Your task to perform on an android device: turn on improve location accuracy Image 0: 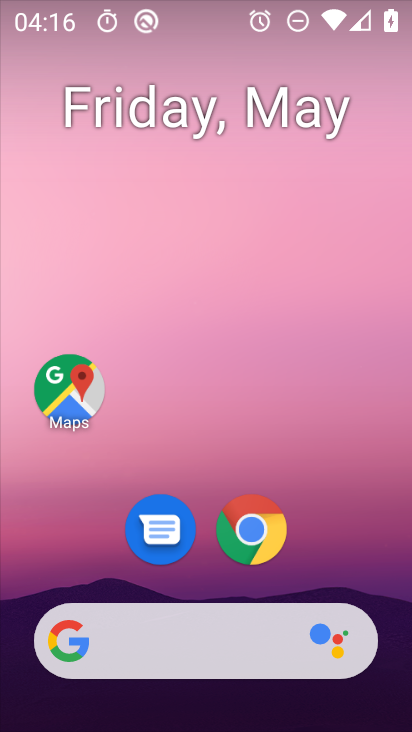
Step 0: drag from (393, 628) to (367, 245)
Your task to perform on an android device: turn on improve location accuracy Image 1: 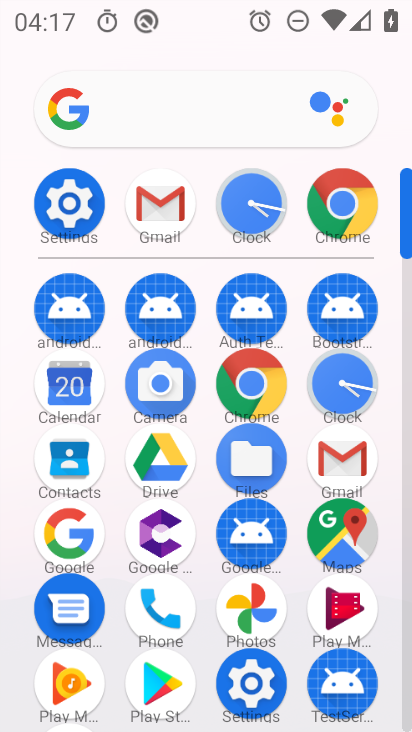
Step 1: click (244, 684)
Your task to perform on an android device: turn on improve location accuracy Image 2: 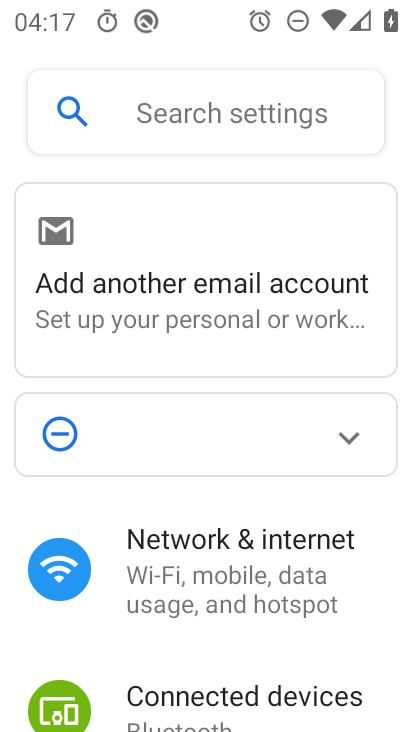
Step 2: drag from (314, 709) to (281, 182)
Your task to perform on an android device: turn on improve location accuracy Image 3: 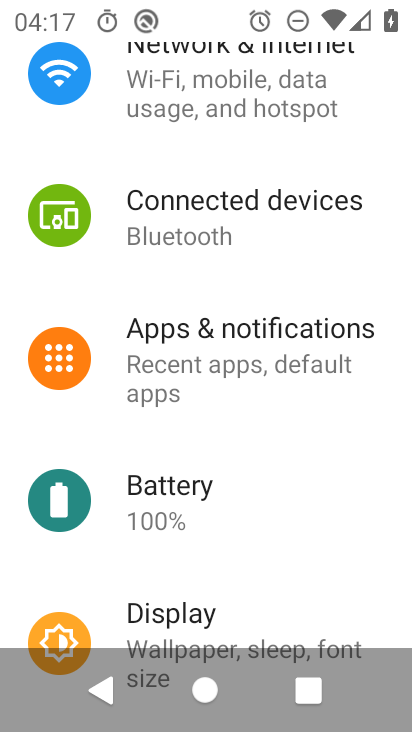
Step 3: drag from (290, 618) to (272, 276)
Your task to perform on an android device: turn on improve location accuracy Image 4: 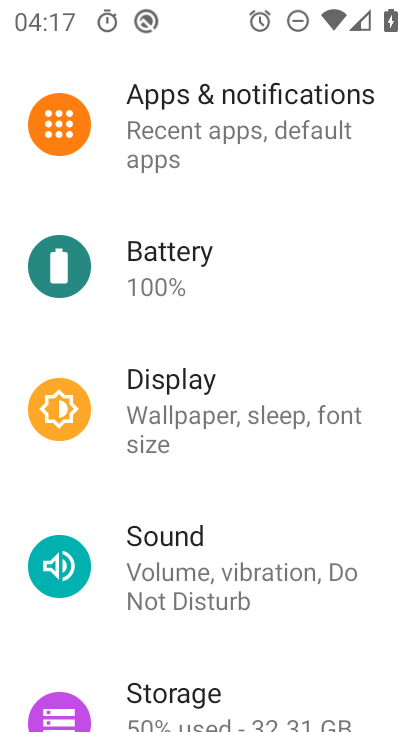
Step 4: drag from (260, 699) to (261, 293)
Your task to perform on an android device: turn on improve location accuracy Image 5: 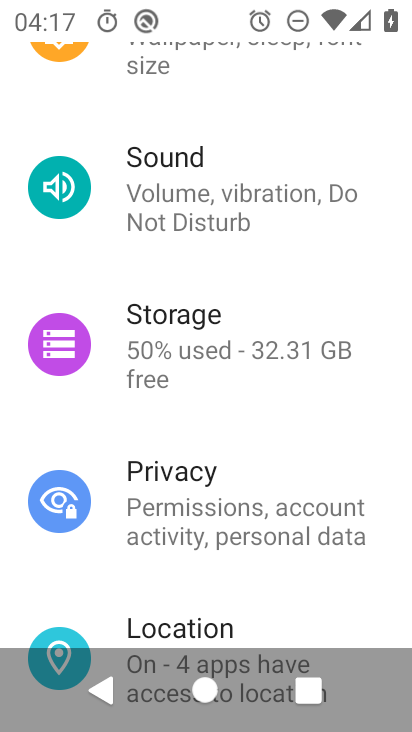
Step 5: click (199, 626)
Your task to perform on an android device: turn on improve location accuracy Image 6: 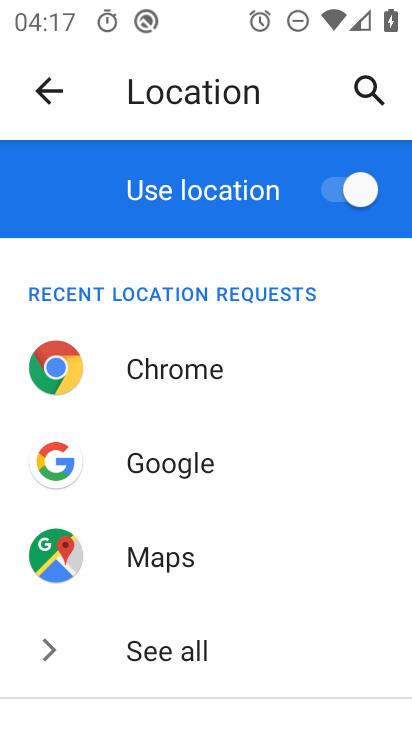
Step 6: drag from (307, 679) to (277, 288)
Your task to perform on an android device: turn on improve location accuracy Image 7: 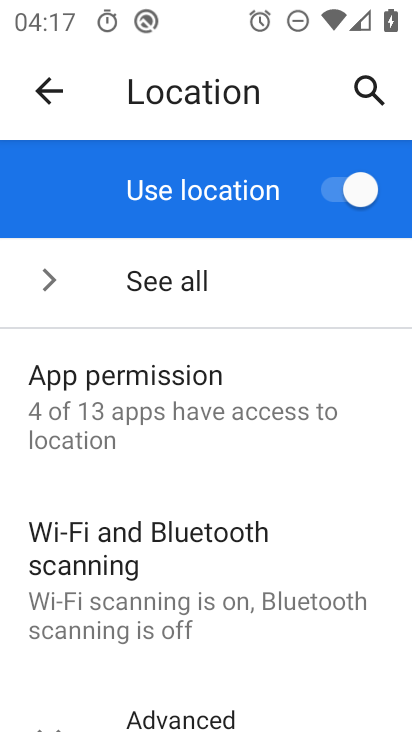
Step 7: drag from (325, 688) to (318, 284)
Your task to perform on an android device: turn on improve location accuracy Image 8: 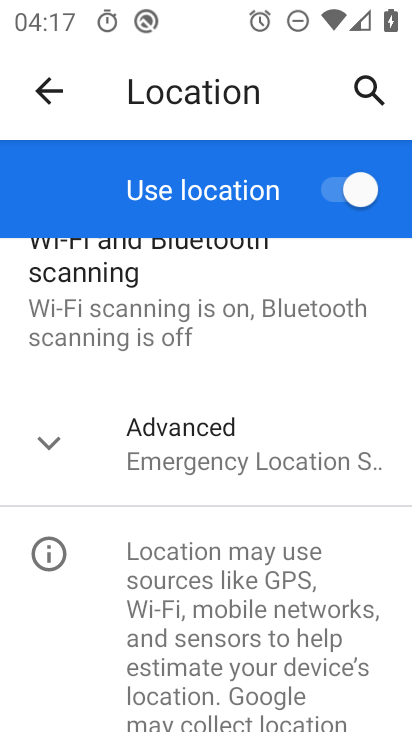
Step 8: click (45, 438)
Your task to perform on an android device: turn on improve location accuracy Image 9: 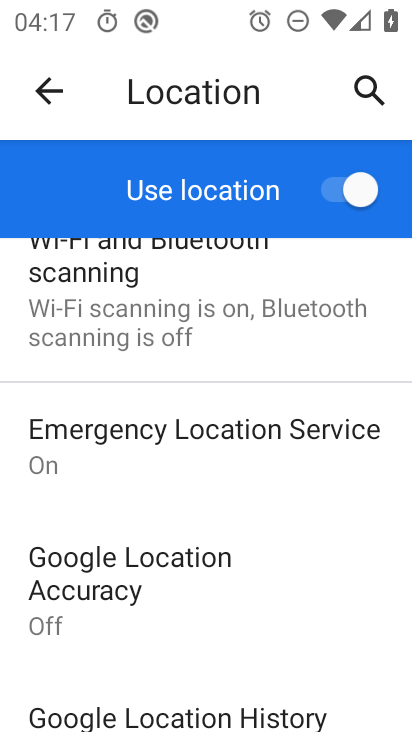
Step 9: click (72, 578)
Your task to perform on an android device: turn on improve location accuracy Image 10: 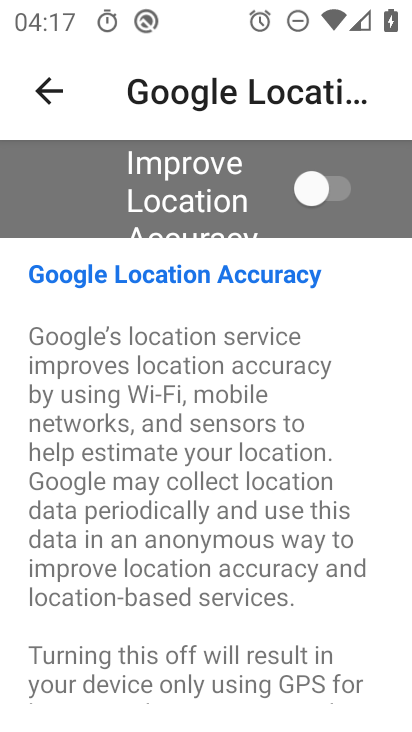
Step 10: click (345, 192)
Your task to perform on an android device: turn on improve location accuracy Image 11: 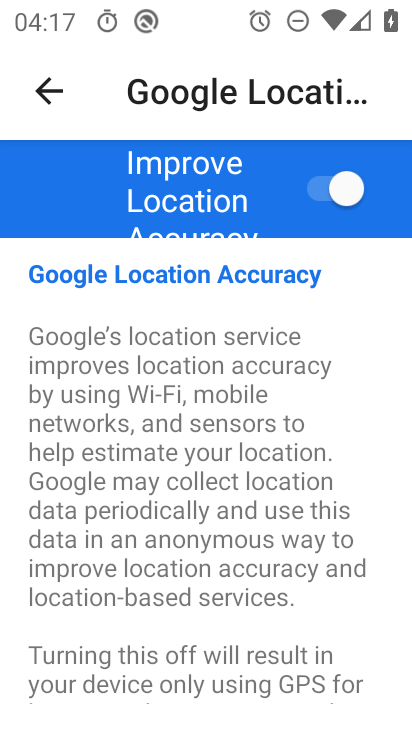
Step 11: task complete